Your task to perform on an android device: set an alarm Image 0: 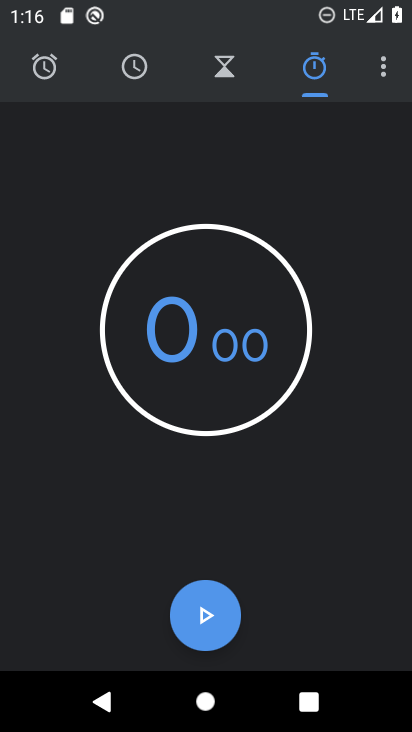
Step 0: click (52, 60)
Your task to perform on an android device: set an alarm Image 1: 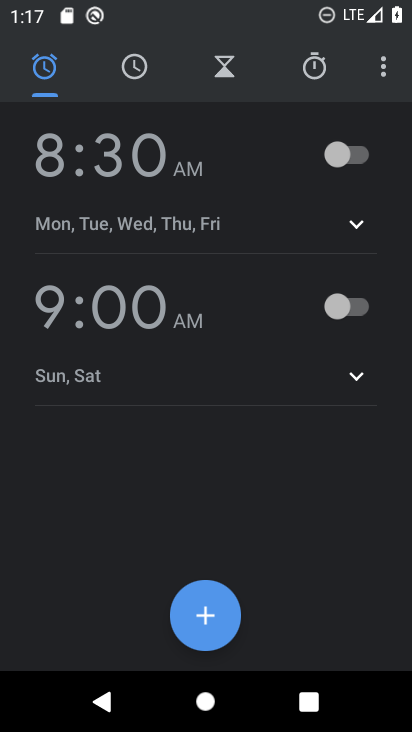
Step 1: click (196, 614)
Your task to perform on an android device: set an alarm Image 2: 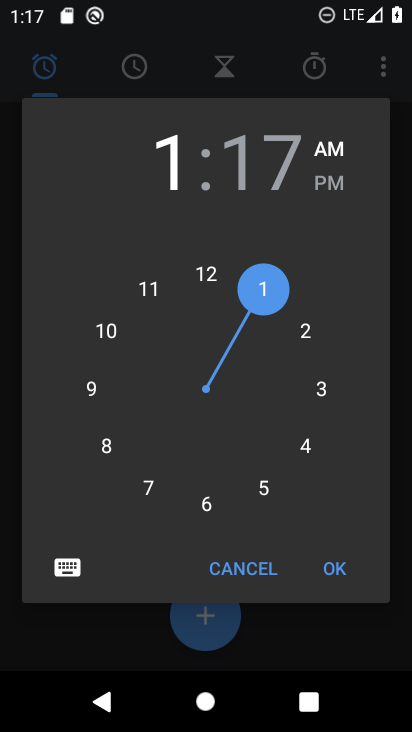
Step 2: click (261, 190)
Your task to perform on an android device: set an alarm Image 3: 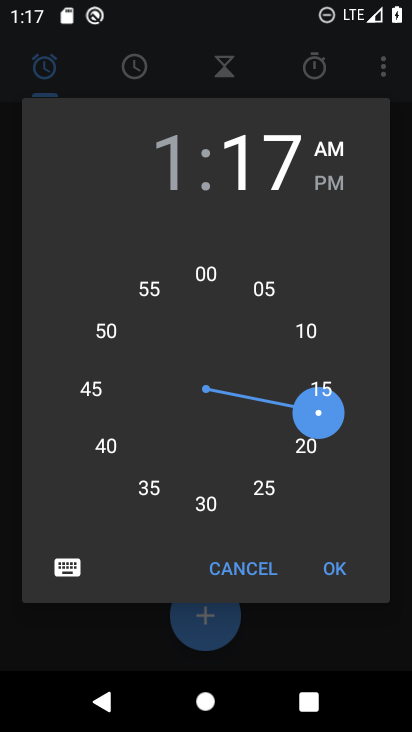
Step 3: click (209, 266)
Your task to perform on an android device: set an alarm Image 4: 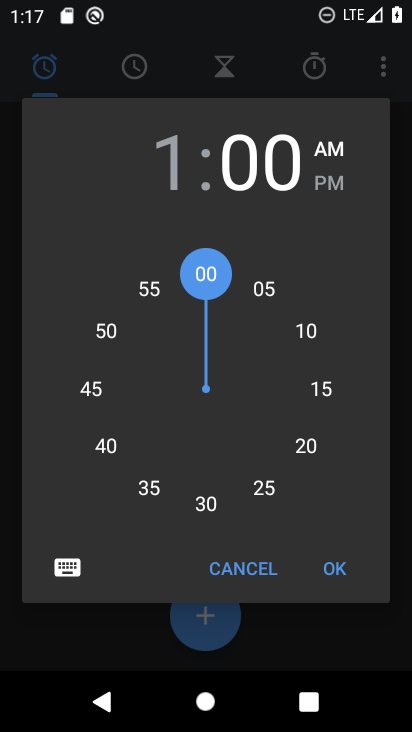
Step 4: click (333, 561)
Your task to perform on an android device: set an alarm Image 5: 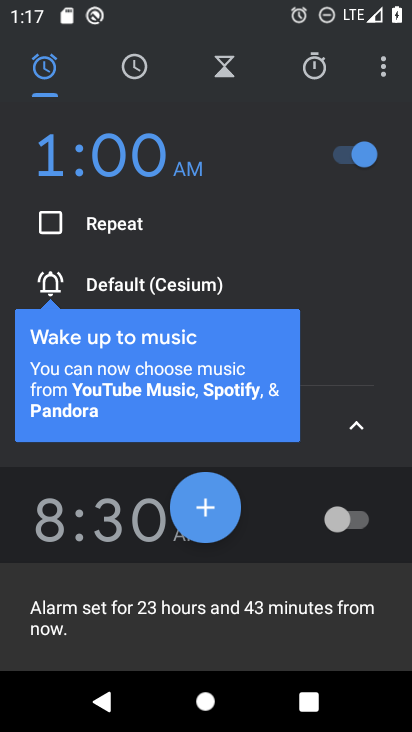
Step 5: task complete